Your task to perform on an android device: Go to battery settings Image 0: 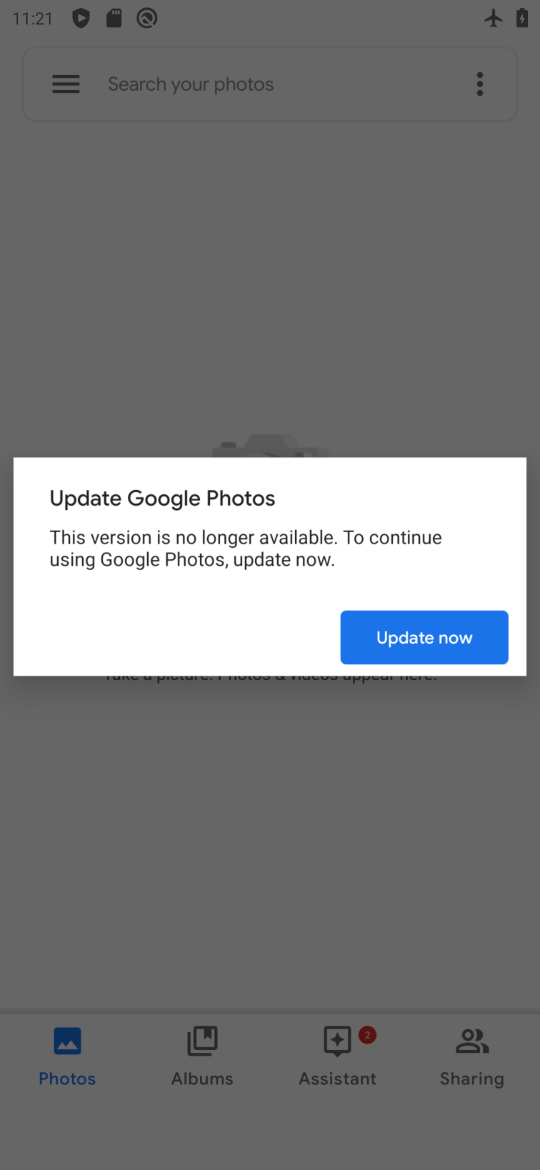
Step 0: drag from (263, 989) to (254, 388)
Your task to perform on an android device: Go to battery settings Image 1: 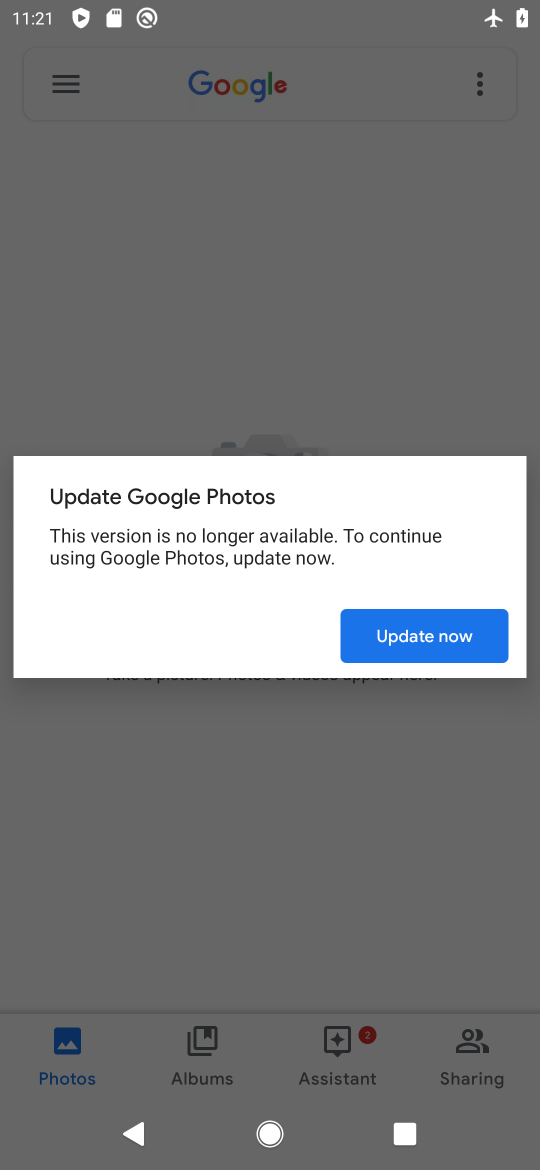
Step 1: press home button
Your task to perform on an android device: Go to battery settings Image 2: 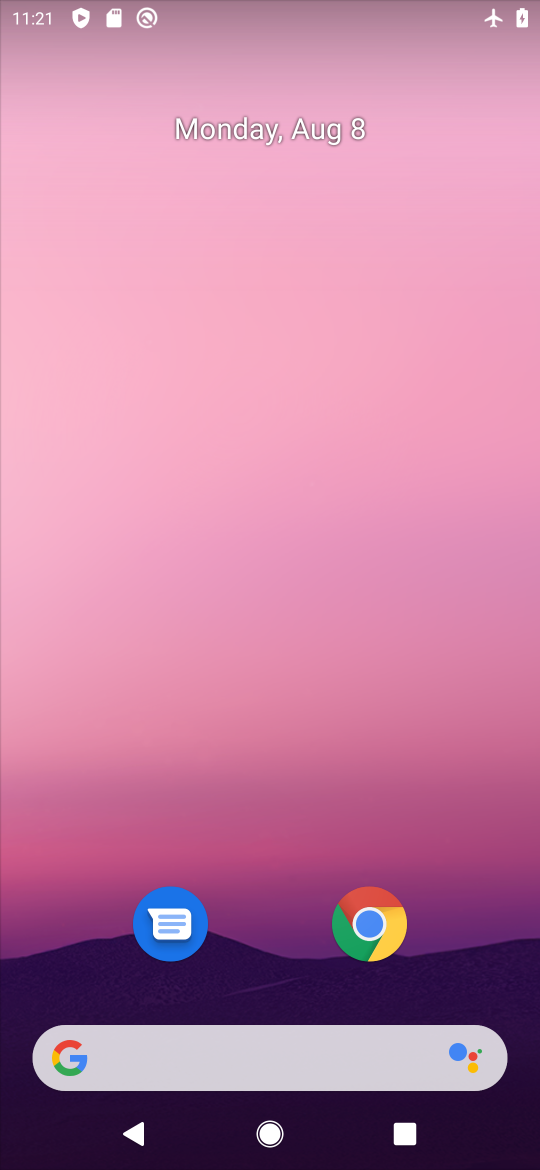
Step 2: drag from (284, 984) to (67, 275)
Your task to perform on an android device: Go to battery settings Image 3: 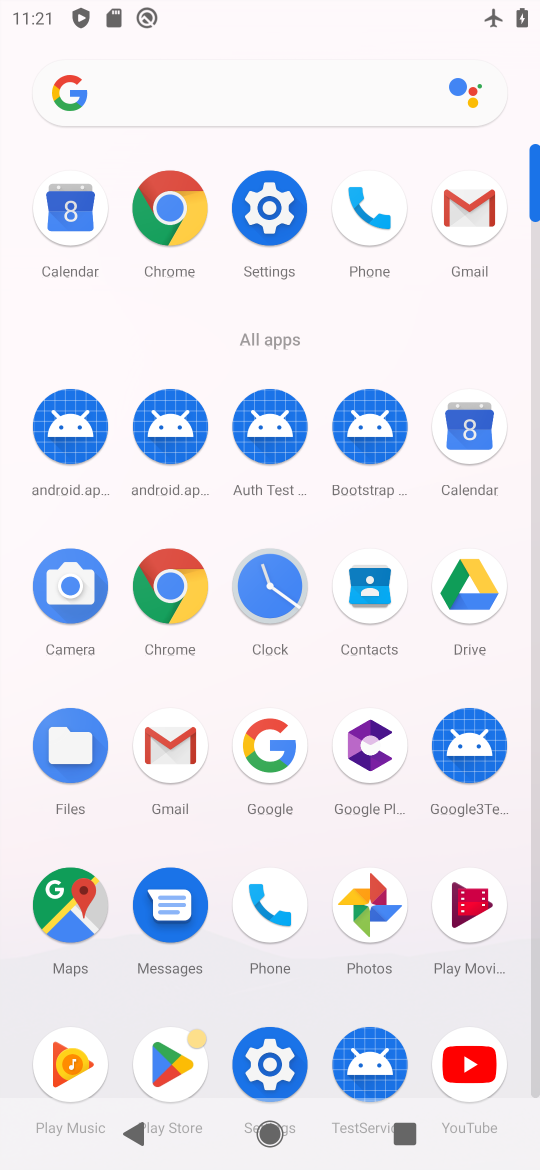
Step 3: click (256, 207)
Your task to perform on an android device: Go to battery settings Image 4: 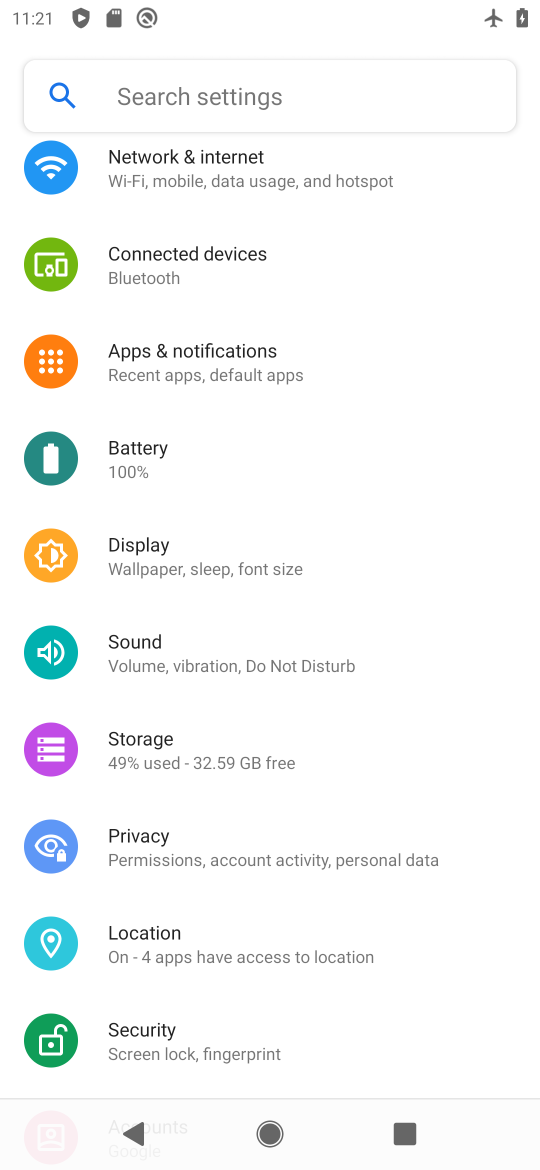
Step 4: click (224, 446)
Your task to perform on an android device: Go to battery settings Image 5: 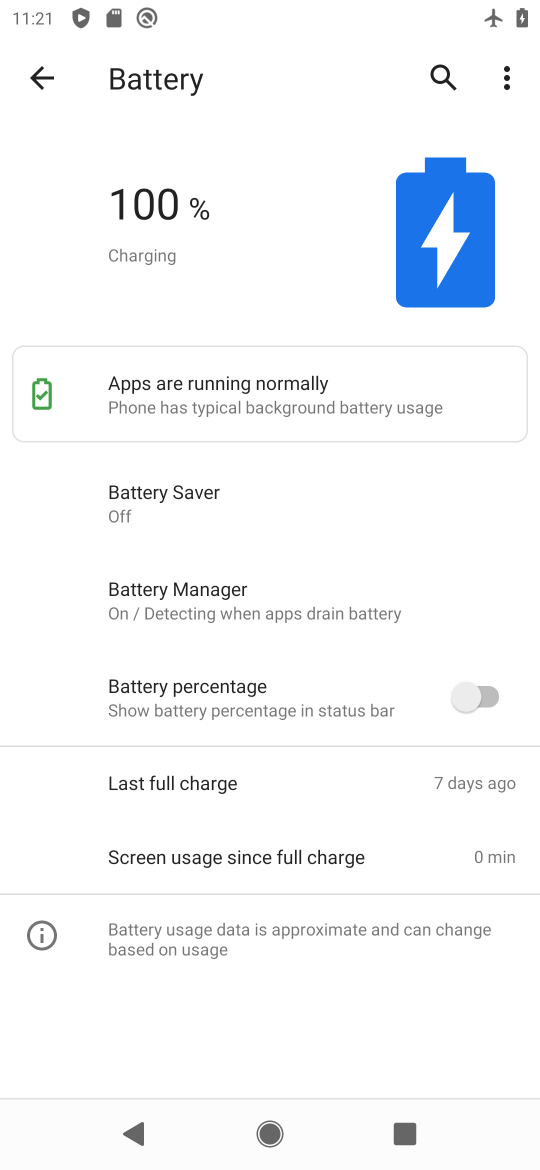
Step 5: task complete